Your task to perform on an android device: Check the weather Image 0: 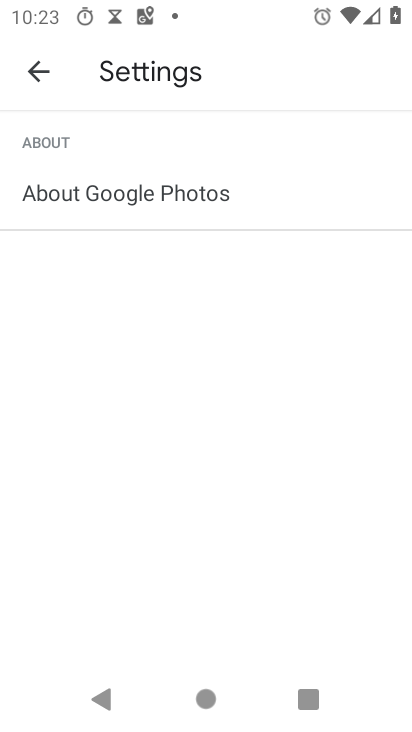
Step 0: press home button
Your task to perform on an android device: Check the weather Image 1: 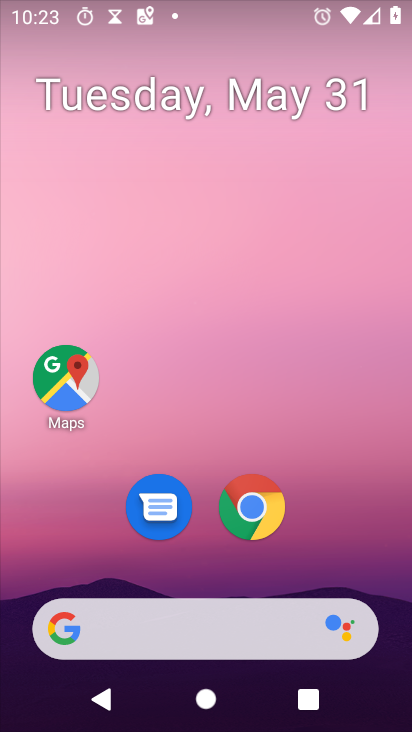
Step 1: click (206, 627)
Your task to perform on an android device: Check the weather Image 2: 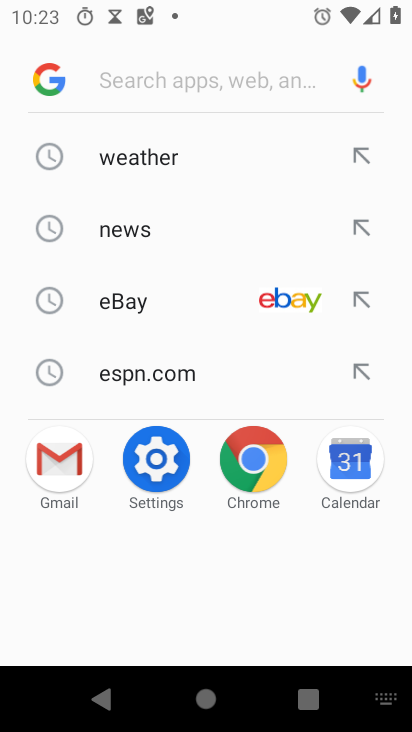
Step 2: click (182, 165)
Your task to perform on an android device: Check the weather Image 3: 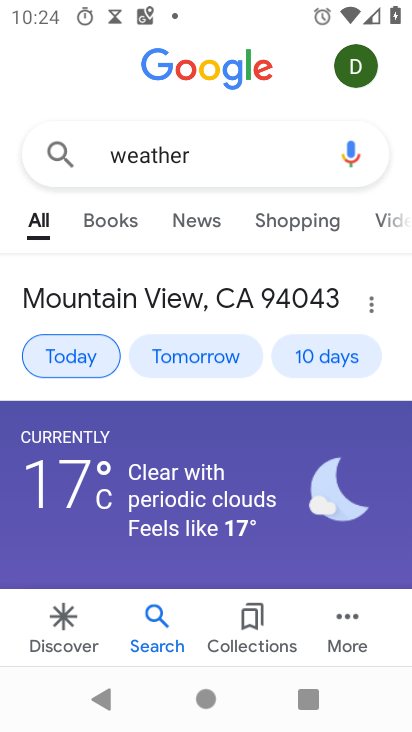
Step 3: task complete